Your task to perform on an android device: turn vacation reply on in the gmail app Image 0: 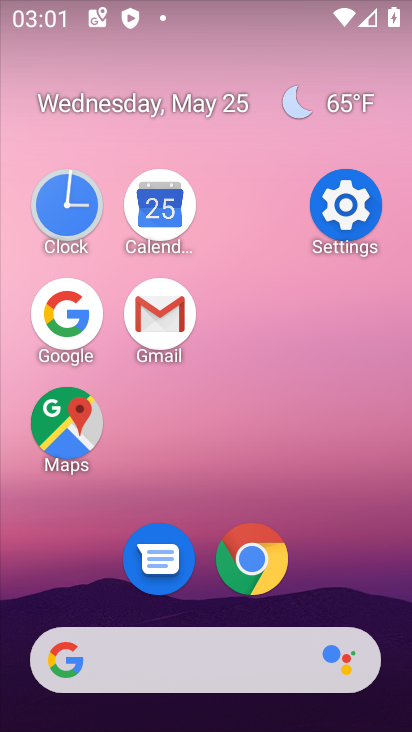
Step 0: click (171, 331)
Your task to perform on an android device: turn vacation reply on in the gmail app Image 1: 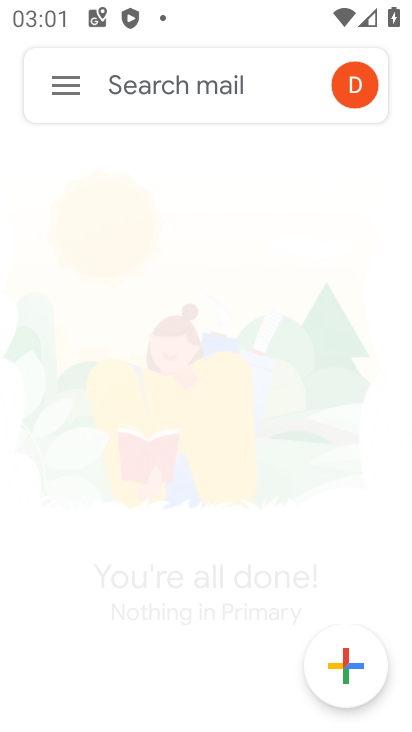
Step 1: click (72, 97)
Your task to perform on an android device: turn vacation reply on in the gmail app Image 2: 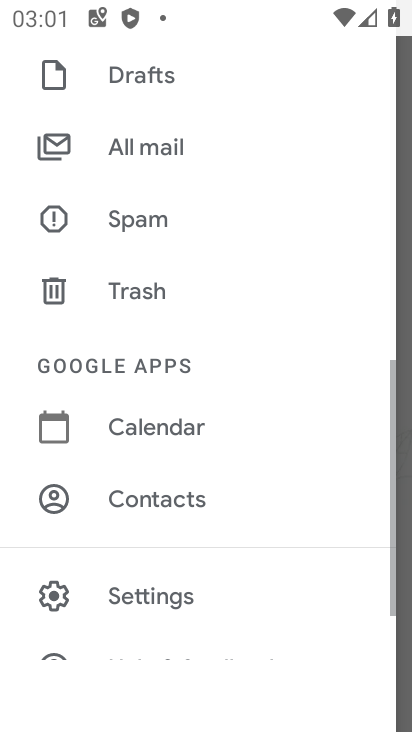
Step 2: drag from (215, 579) to (225, 263)
Your task to perform on an android device: turn vacation reply on in the gmail app Image 3: 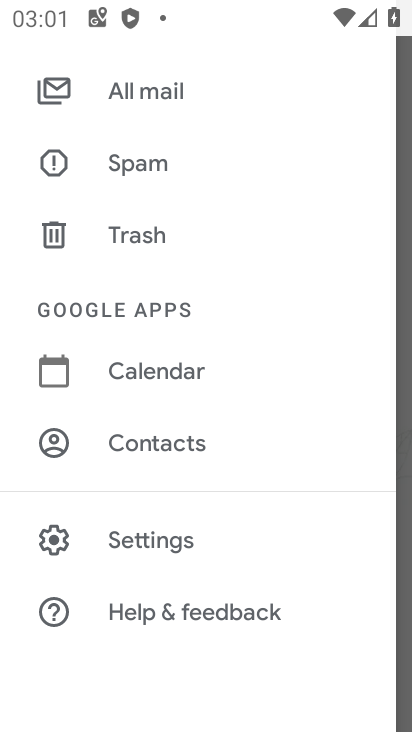
Step 3: click (173, 526)
Your task to perform on an android device: turn vacation reply on in the gmail app Image 4: 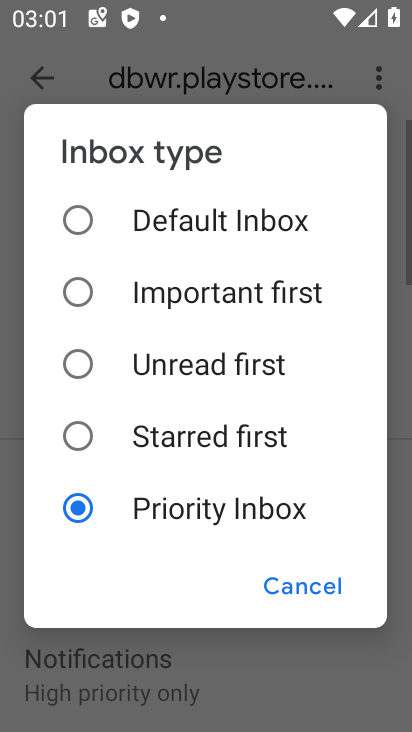
Step 4: click (313, 589)
Your task to perform on an android device: turn vacation reply on in the gmail app Image 5: 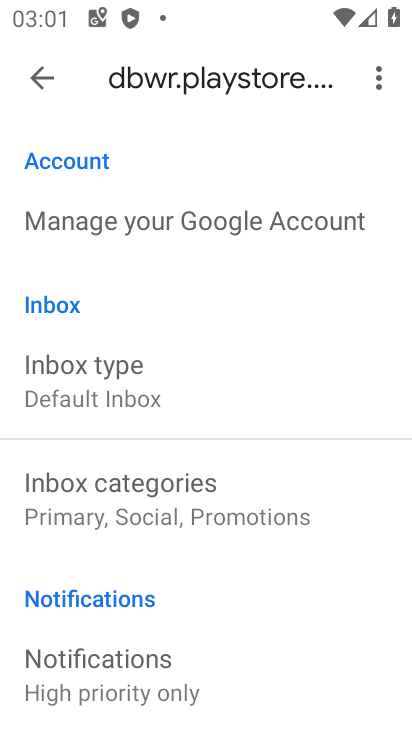
Step 5: drag from (228, 510) to (216, 247)
Your task to perform on an android device: turn vacation reply on in the gmail app Image 6: 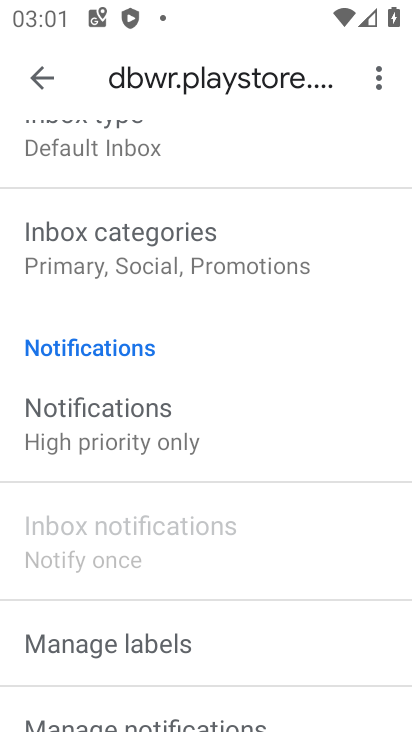
Step 6: drag from (247, 584) to (210, 224)
Your task to perform on an android device: turn vacation reply on in the gmail app Image 7: 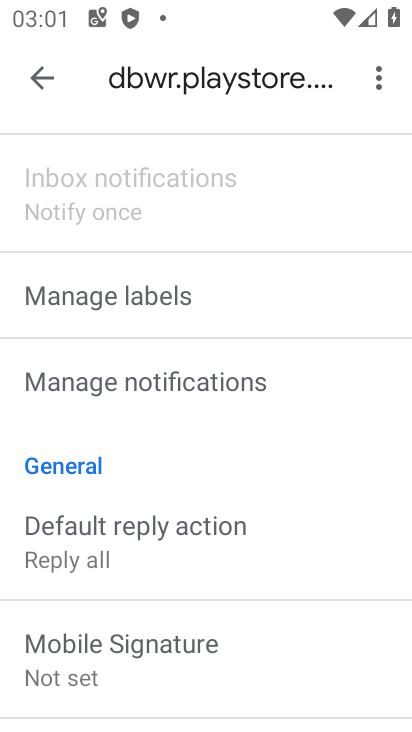
Step 7: drag from (270, 612) to (259, 231)
Your task to perform on an android device: turn vacation reply on in the gmail app Image 8: 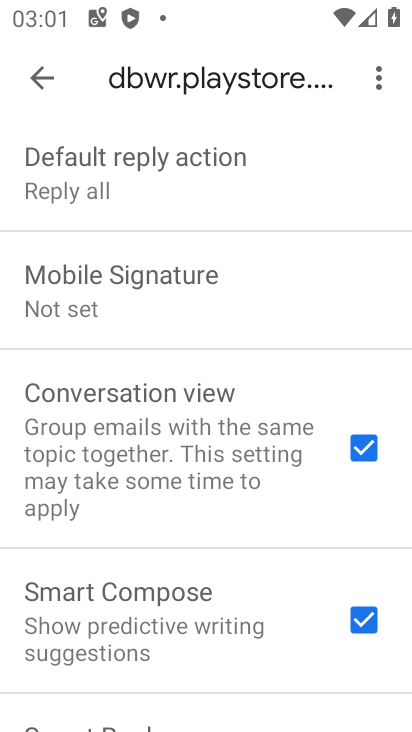
Step 8: drag from (245, 552) to (227, 203)
Your task to perform on an android device: turn vacation reply on in the gmail app Image 9: 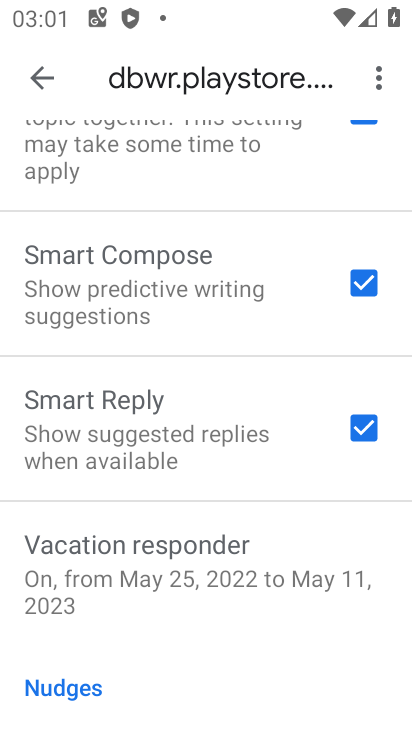
Step 9: click (246, 583)
Your task to perform on an android device: turn vacation reply on in the gmail app Image 10: 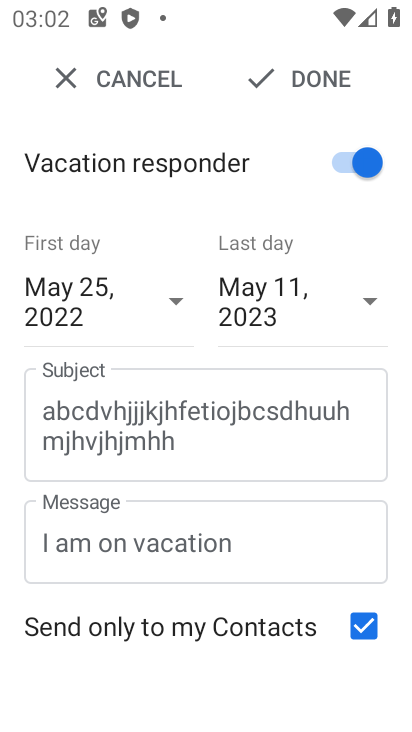
Step 10: click (308, 87)
Your task to perform on an android device: turn vacation reply on in the gmail app Image 11: 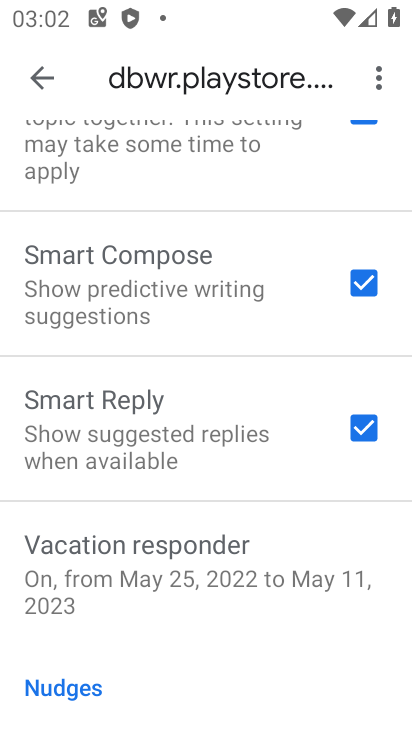
Step 11: task complete